Your task to perform on an android device: toggle improve location accuracy Image 0: 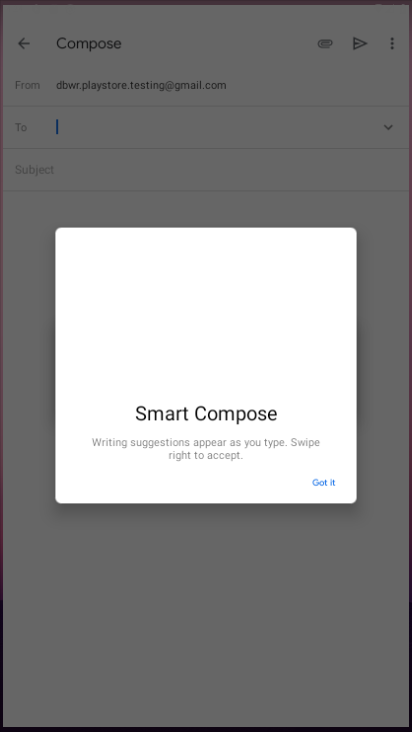
Step 0: press home button
Your task to perform on an android device: toggle improve location accuracy Image 1: 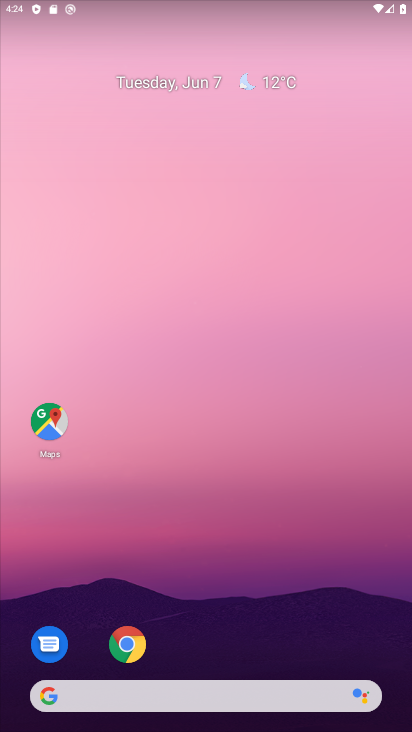
Step 1: drag from (310, 612) to (371, 25)
Your task to perform on an android device: toggle improve location accuracy Image 2: 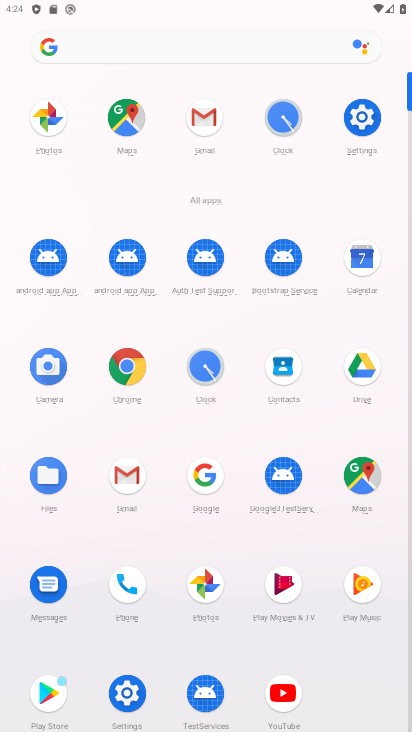
Step 2: click (365, 127)
Your task to perform on an android device: toggle improve location accuracy Image 3: 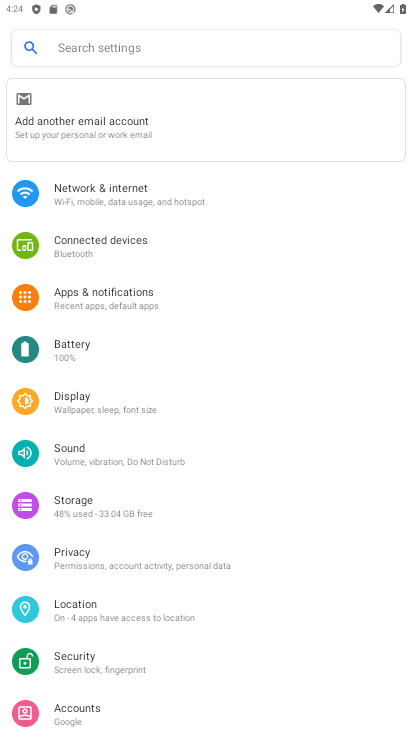
Step 3: click (115, 616)
Your task to perform on an android device: toggle improve location accuracy Image 4: 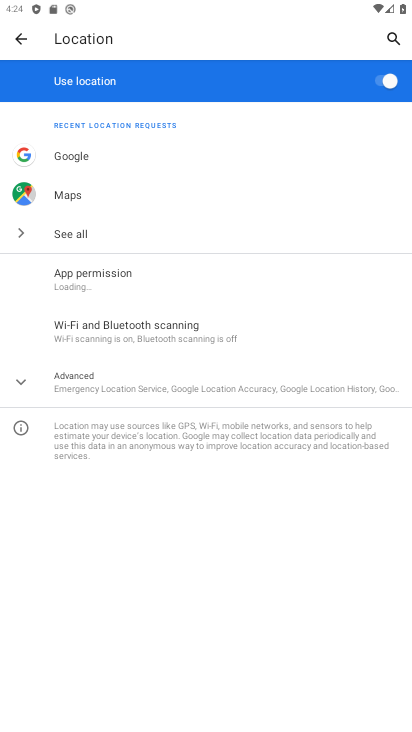
Step 4: click (23, 381)
Your task to perform on an android device: toggle improve location accuracy Image 5: 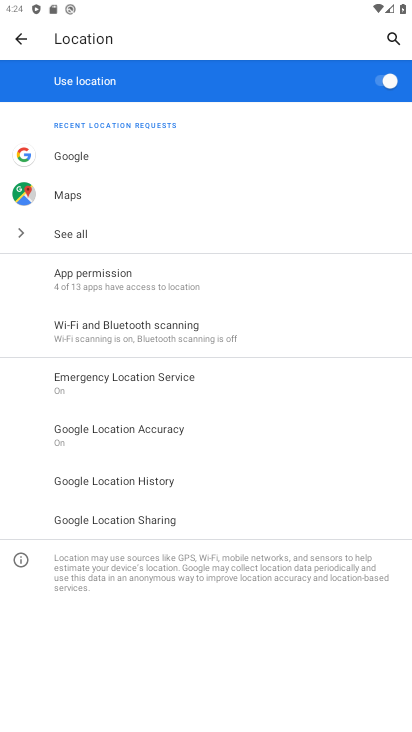
Step 5: click (143, 433)
Your task to perform on an android device: toggle improve location accuracy Image 6: 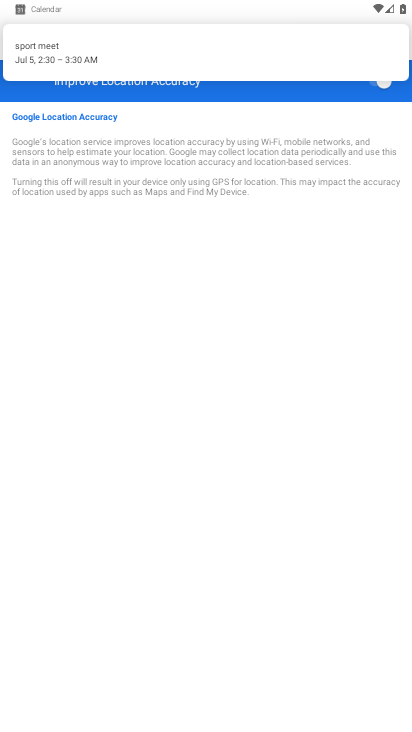
Step 6: click (380, 83)
Your task to perform on an android device: toggle improve location accuracy Image 7: 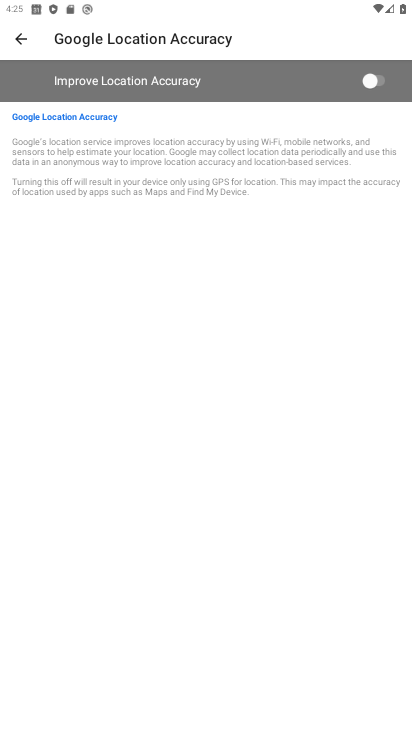
Step 7: task complete